Your task to perform on an android device: Check the weather Image 0: 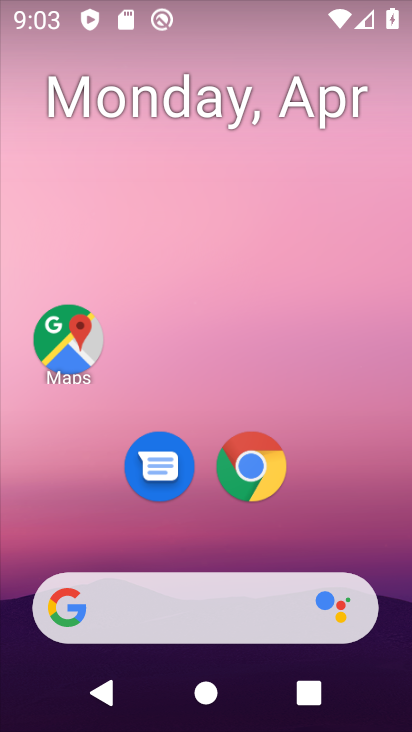
Step 0: drag from (207, 545) to (243, 70)
Your task to perform on an android device: Check the weather Image 1: 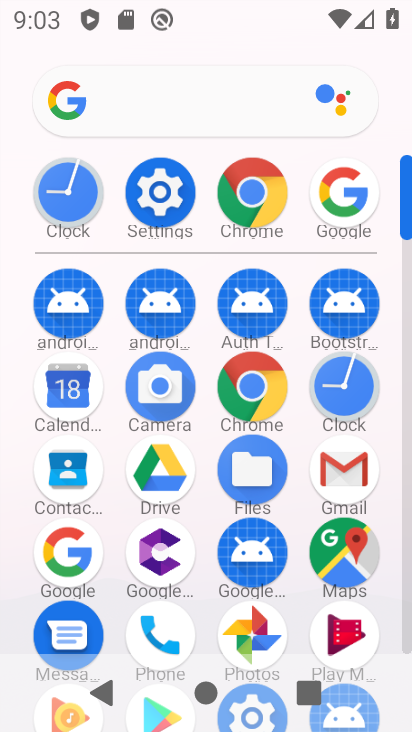
Step 1: click (351, 229)
Your task to perform on an android device: Check the weather Image 2: 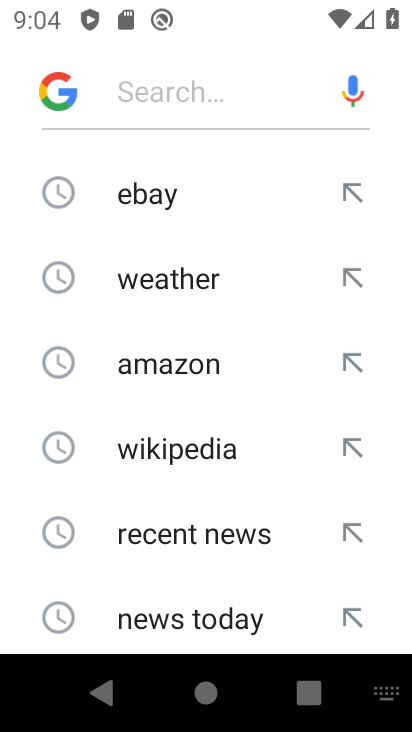
Step 2: click (198, 278)
Your task to perform on an android device: Check the weather Image 3: 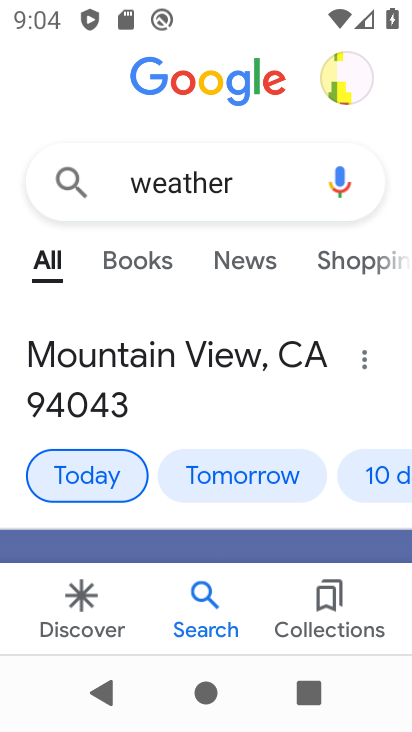
Step 3: task complete